Your task to perform on an android device: turn off improve location accuracy Image 0: 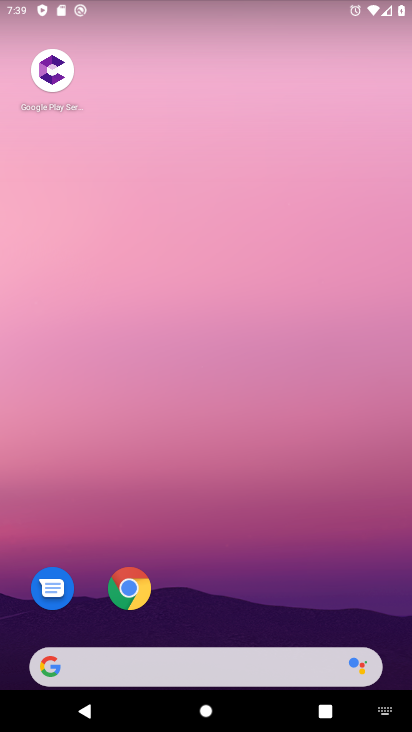
Step 0: drag from (221, 624) to (231, 388)
Your task to perform on an android device: turn off improve location accuracy Image 1: 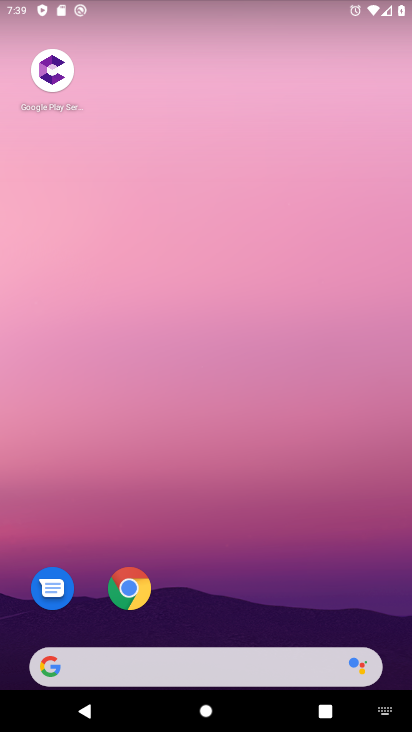
Step 1: drag from (169, 422) to (158, 24)
Your task to perform on an android device: turn off improve location accuracy Image 2: 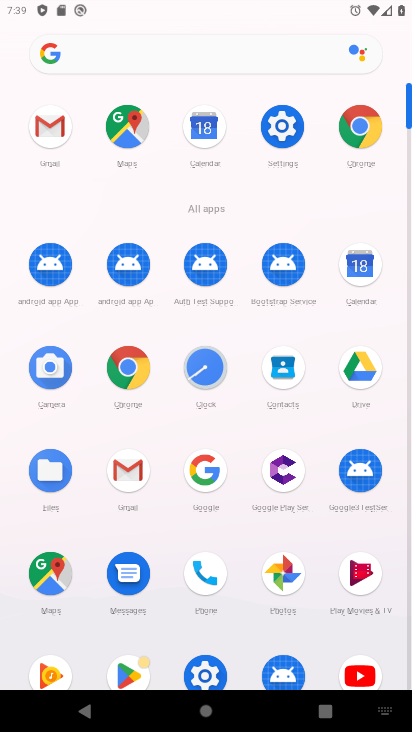
Step 2: click (277, 132)
Your task to perform on an android device: turn off improve location accuracy Image 3: 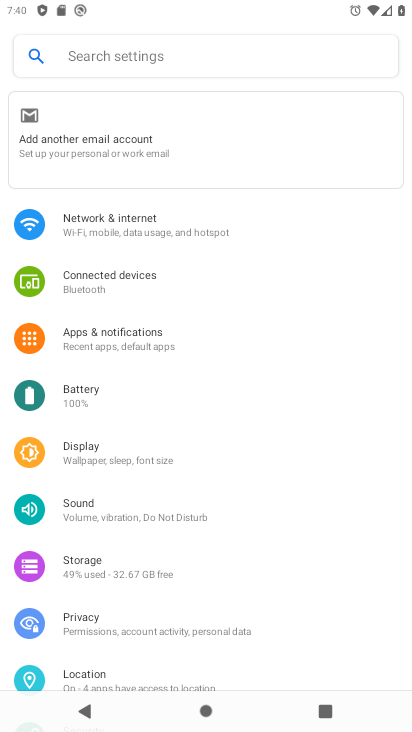
Step 3: click (91, 667)
Your task to perform on an android device: turn off improve location accuracy Image 4: 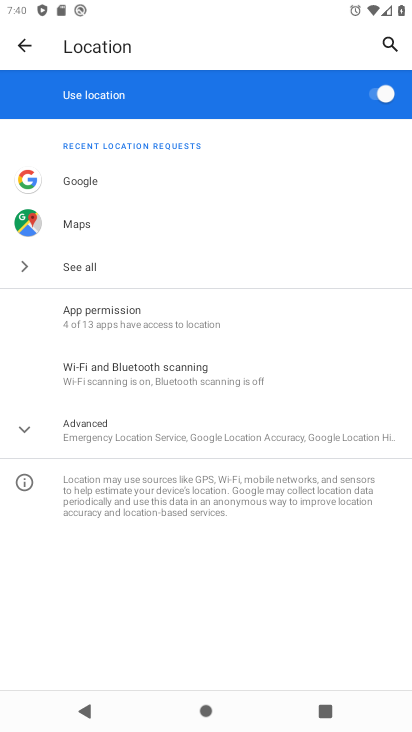
Step 4: click (117, 431)
Your task to perform on an android device: turn off improve location accuracy Image 5: 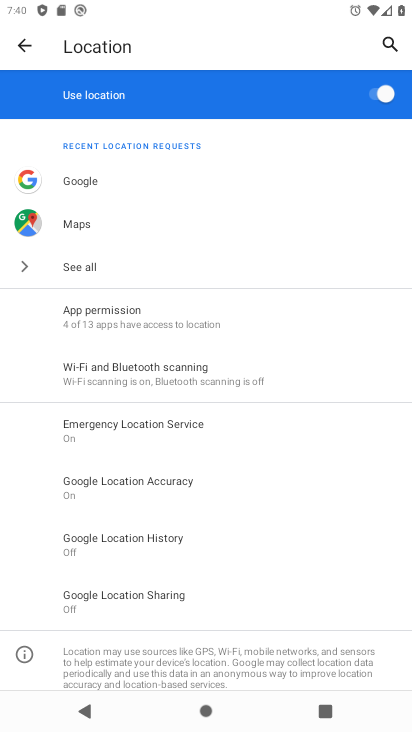
Step 5: click (150, 493)
Your task to perform on an android device: turn off improve location accuracy Image 6: 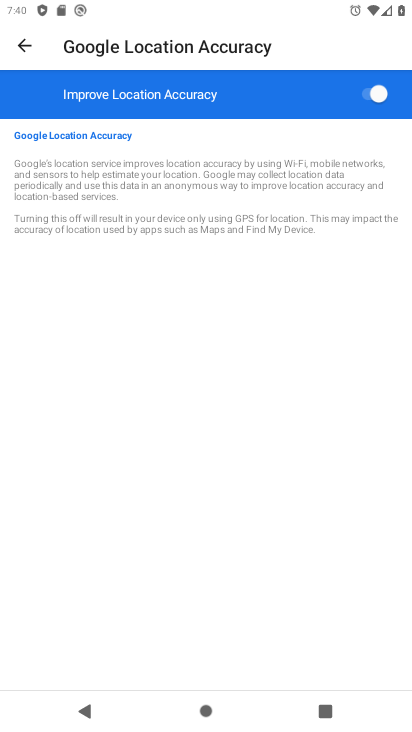
Step 6: click (357, 97)
Your task to perform on an android device: turn off improve location accuracy Image 7: 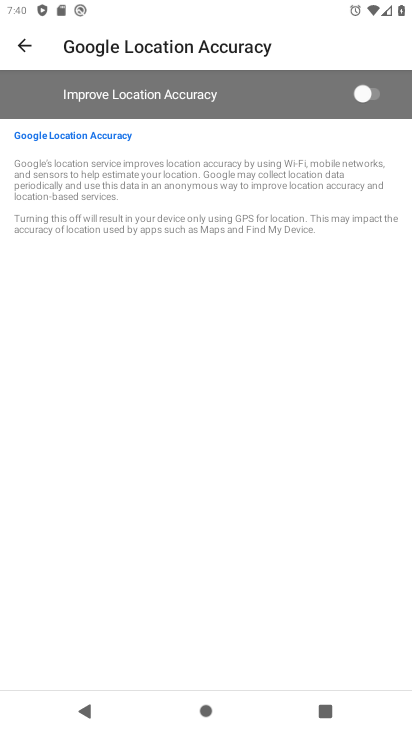
Step 7: task complete